Your task to perform on an android device: Search for vegetarian restaurants on Maps Image 0: 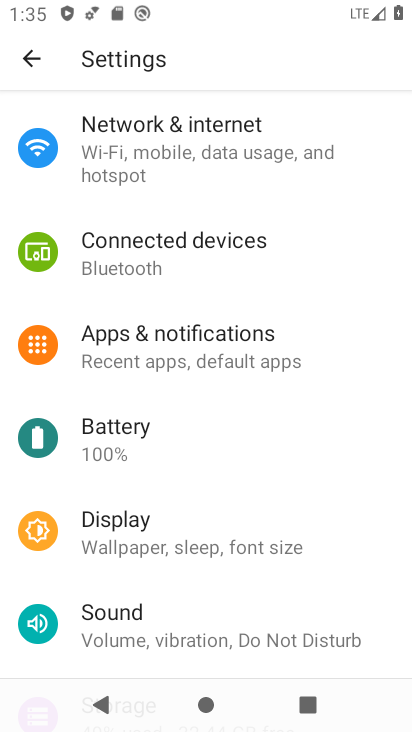
Step 0: press home button
Your task to perform on an android device: Search for vegetarian restaurants on Maps Image 1: 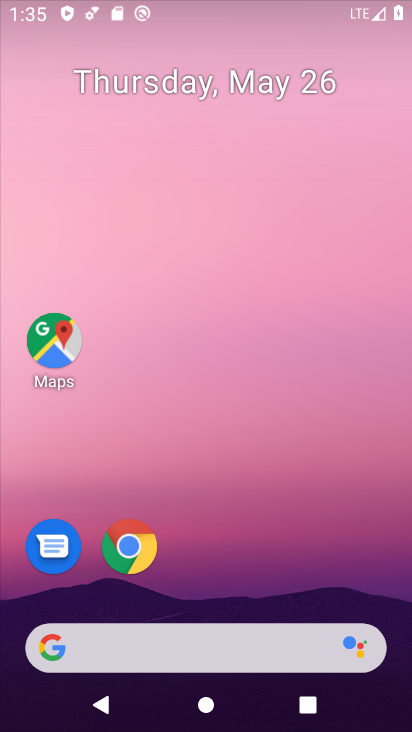
Step 1: click (63, 329)
Your task to perform on an android device: Search for vegetarian restaurants on Maps Image 2: 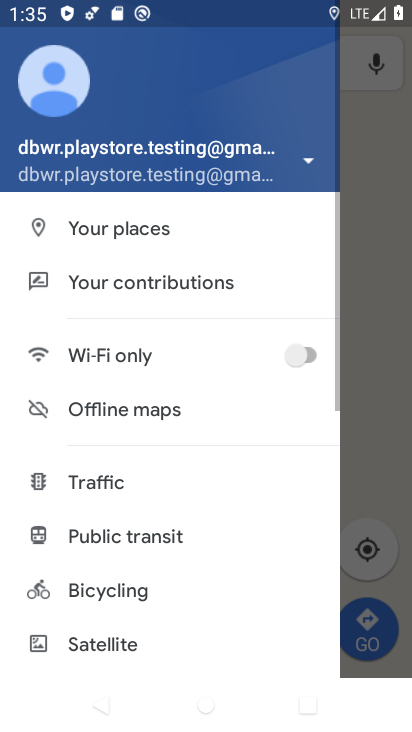
Step 2: click (368, 514)
Your task to perform on an android device: Search for vegetarian restaurants on Maps Image 3: 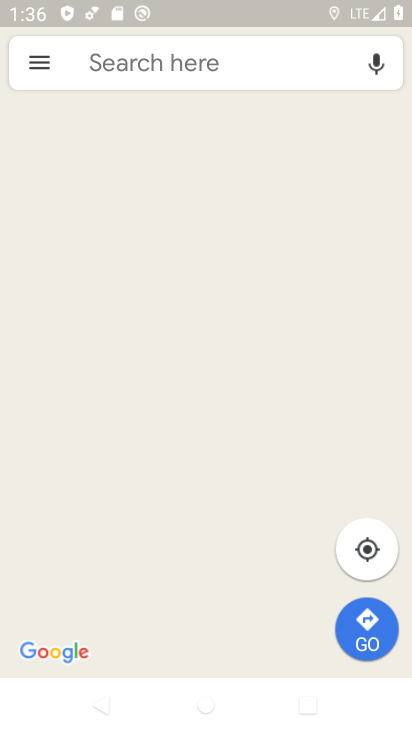
Step 3: click (188, 59)
Your task to perform on an android device: Search for vegetarian restaurants on Maps Image 4: 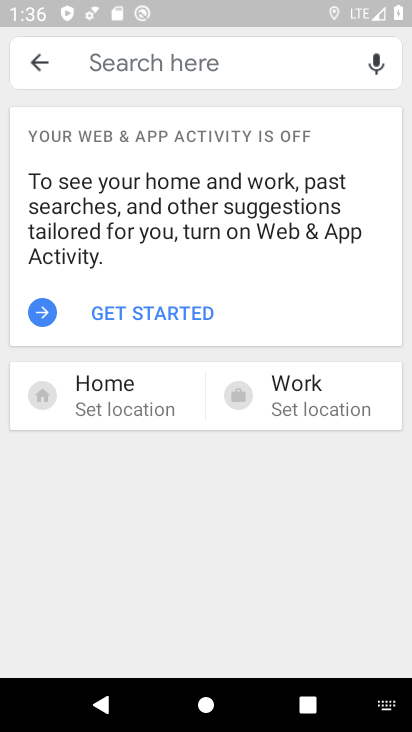
Step 4: click (125, 61)
Your task to perform on an android device: Search for vegetarian restaurants on Maps Image 5: 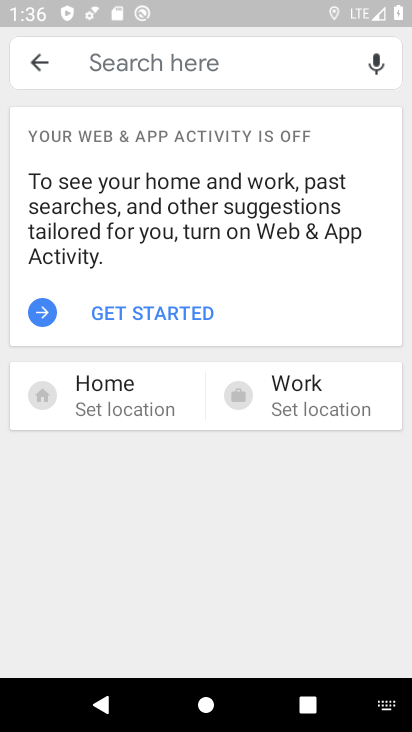
Step 5: type "vegetarian restauratns"
Your task to perform on an android device: Search for vegetarian restaurants on Maps Image 6: 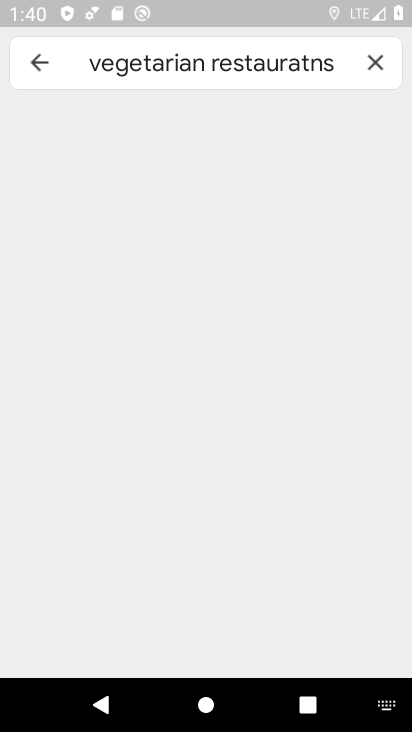
Step 6: task complete